Your task to perform on an android device: See recent photos Image 0: 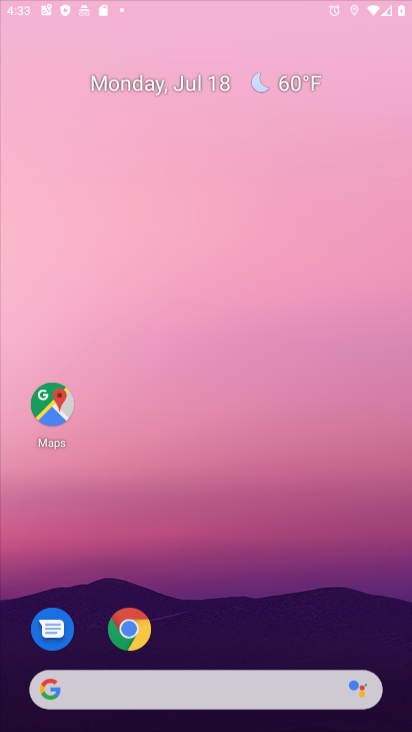
Step 0: press back button
Your task to perform on an android device: See recent photos Image 1: 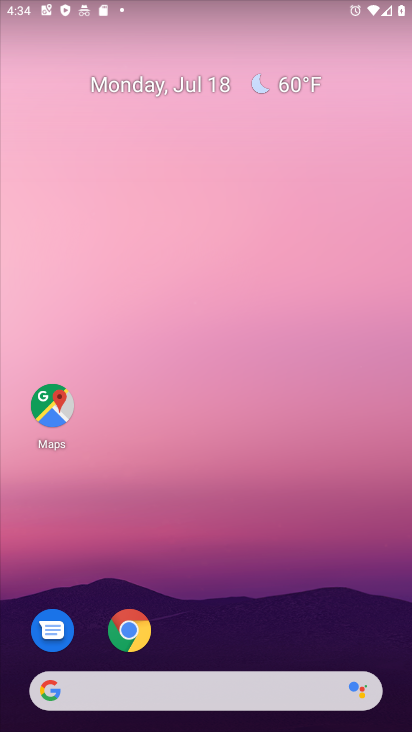
Step 1: drag from (256, 659) to (184, 140)
Your task to perform on an android device: See recent photos Image 2: 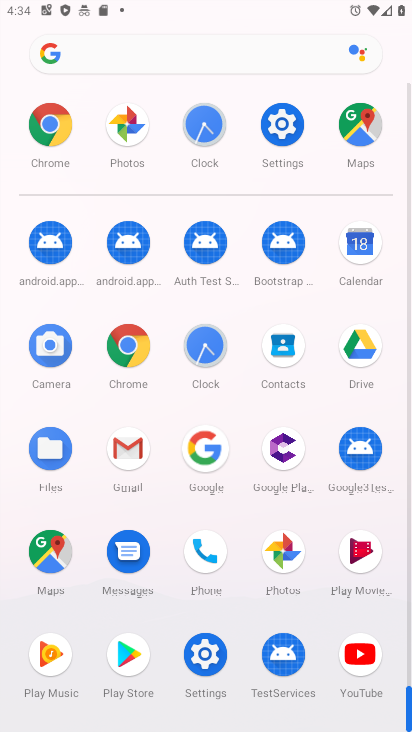
Step 2: click (278, 545)
Your task to perform on an android device: See recent photos Image 3: 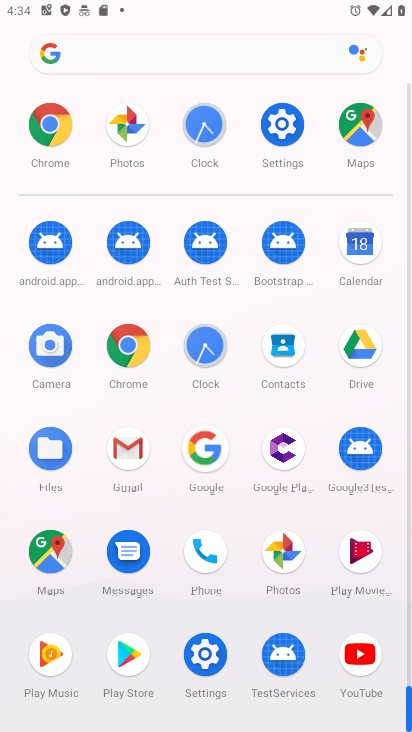
Step 3: click (279, 546)
Your task to perform on an android device: See recent photos Image 4: 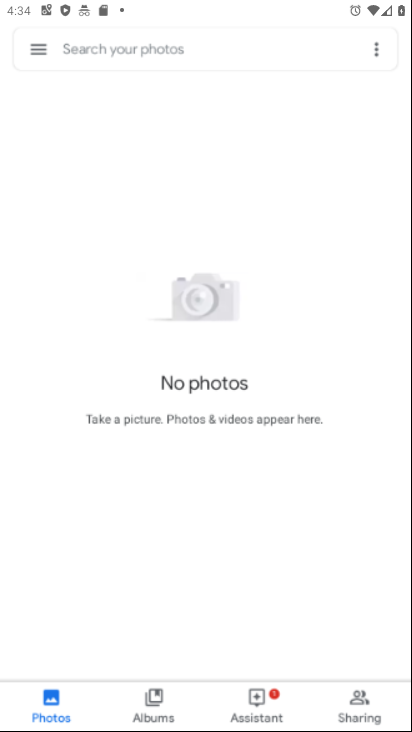
Step 4: click (280, 547)
Your task to perform on an android device: See recent photos Image 5: 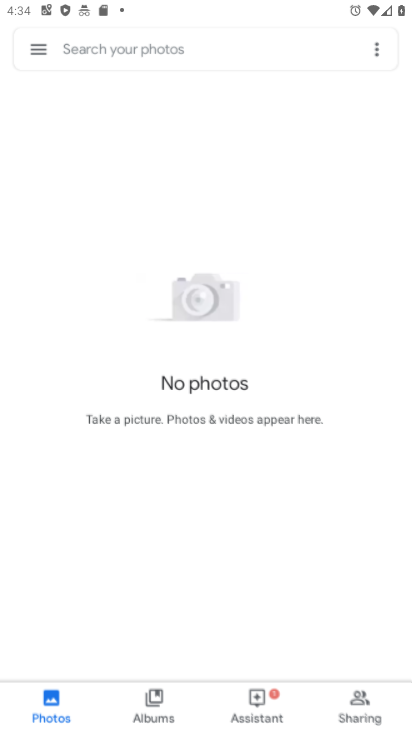
Step 5: click (280, 547)
Your task to perform on an android device: See recent photos Image 6: 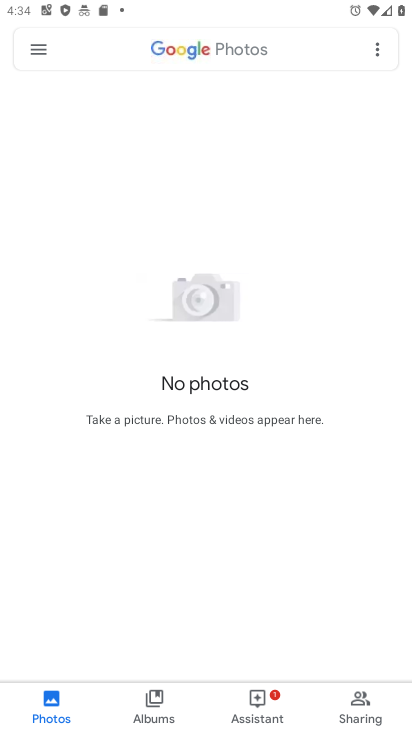
Step 6: task complete